Your task to perform on an android device: turn notification dots off Image 0: 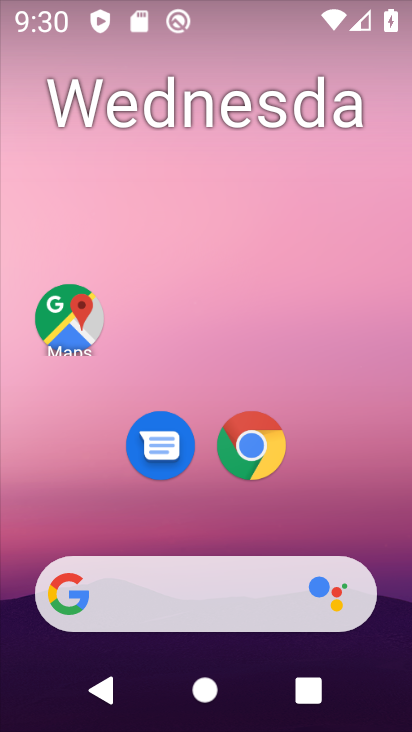
Step 0: drag from (148, 517) to (248, 50)
Your task to perform on an android device: turn notification dots off Image 1: 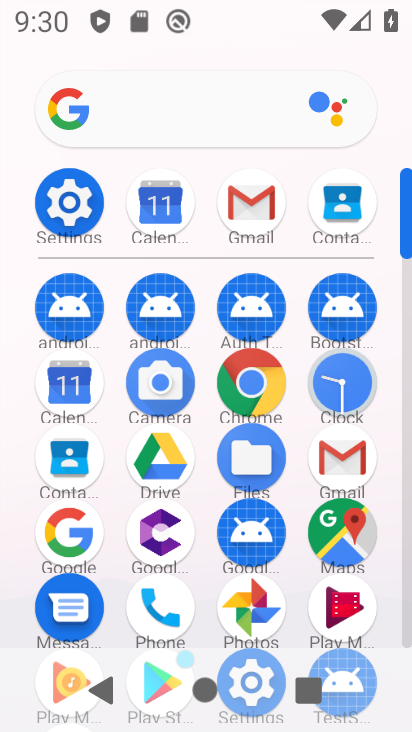
Step 1: click (68, 208)
Your task to perform on an android device: turn notification dots off Image 2: 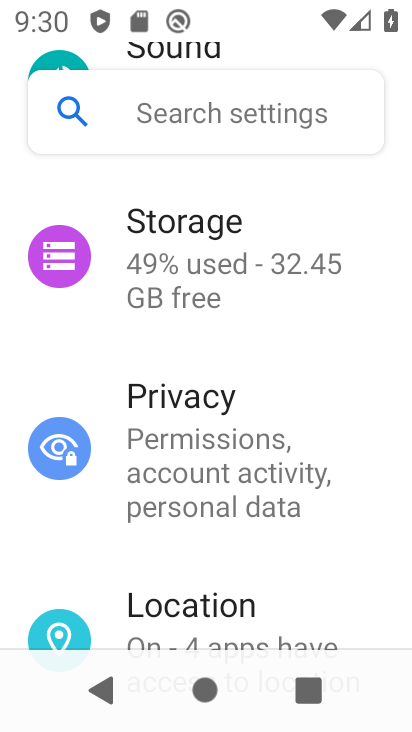
Step 2: drag from (232, 531) to (180, 677)
Your task to perform on an android device: turn notification dots off Image 3: 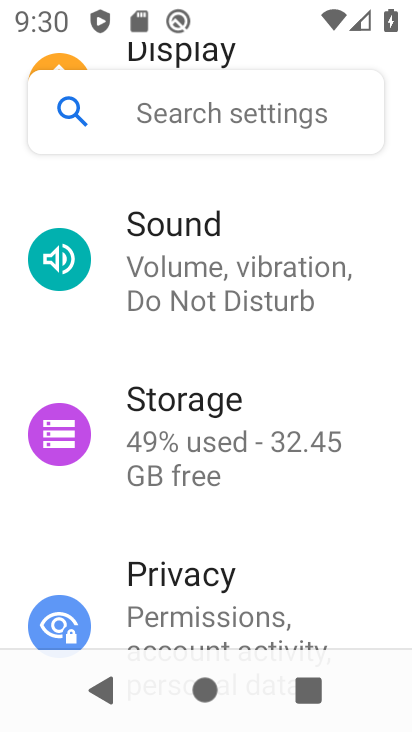
Step 3: drag from (219, 212) to (173, 649)
Your task to perform on an android device: turn notification dots off Image 4: 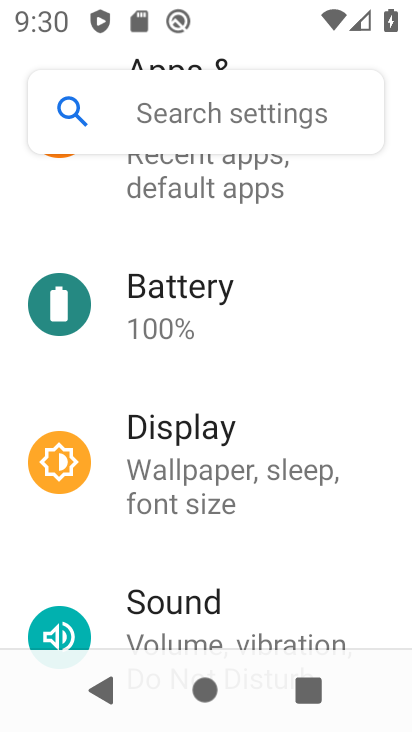
Step 4: drag from (263, 213) to (221, 727)
Your task to perform on an android device: turn notification dots off Image 5: 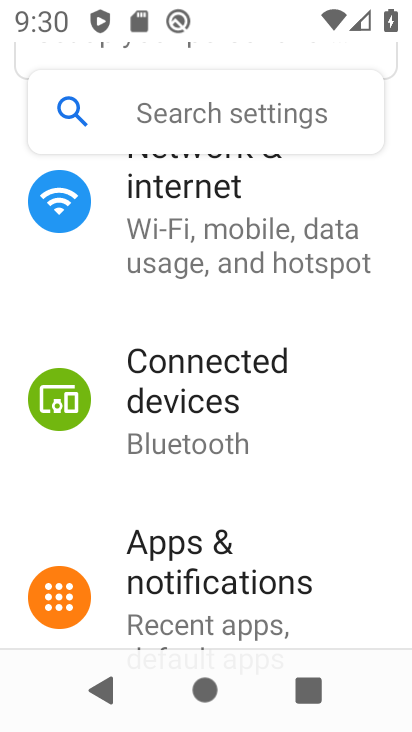
Step 5: click (217, 617)
Your task to perform on an android device: turn notification dots off Image 6: 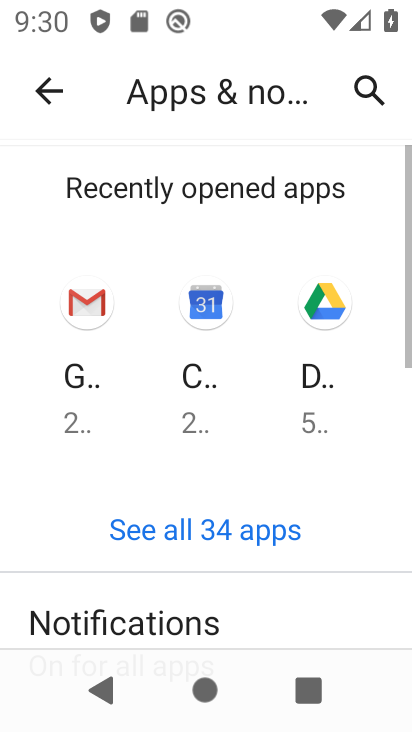
Step 6: drag from (188, 625) to (295, 125)
Your task to perform on an android device: turn notification dots off Image 7: 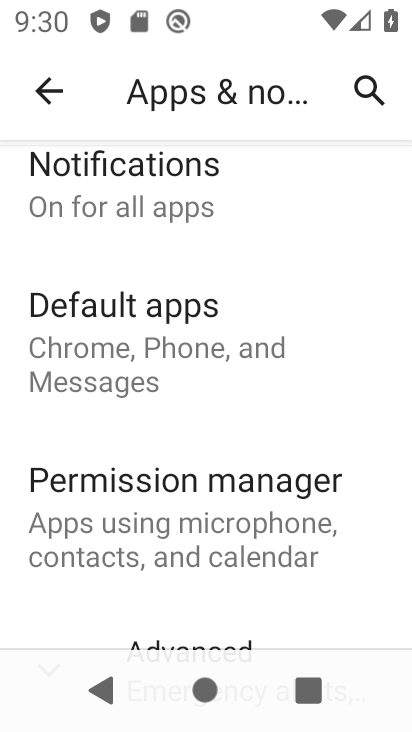
Step 7: click (164, 183)
Your task to perform on an android device: turn notification dots off Image 8: 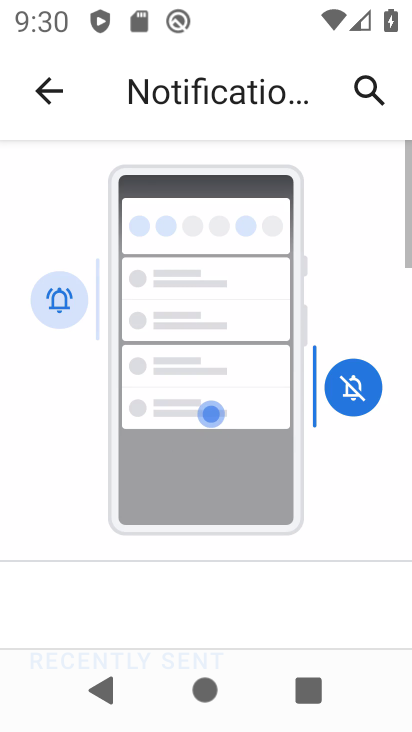
Step 8: drag from (168, 604) to (305, 45)
Your task to perform on an android device: turn notification dots off Image 9: 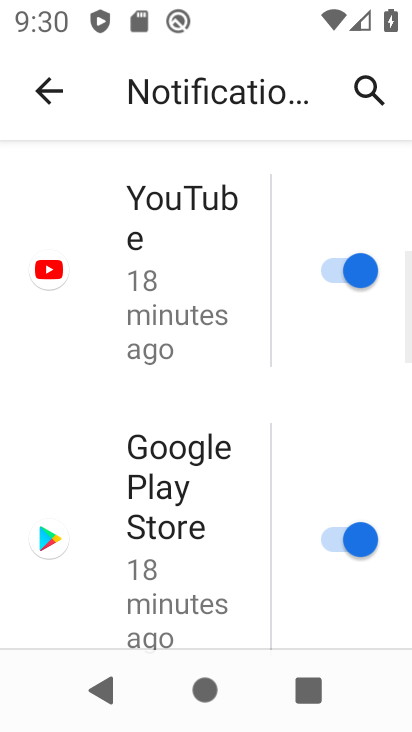
Step 9: drag from (187, 591) to (286, 77)
Your task to perform on an android device: turn notification dots off Image 10: 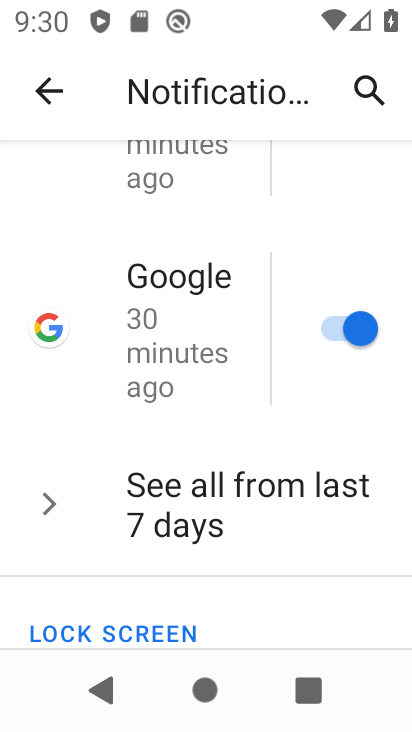
Step 10: drag from (212, 578) to (284, 90)
Your task to perform on an android device: turn notification dots off Image 11: 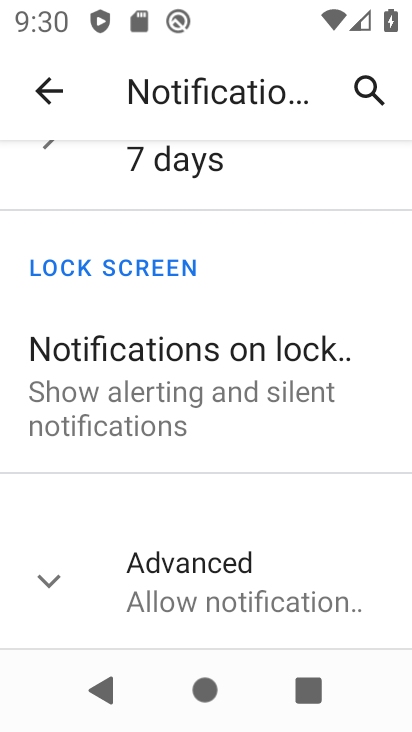
Step 11: click (196, 574)
Your task to perform on an android device: turn notification dots off Image 12: 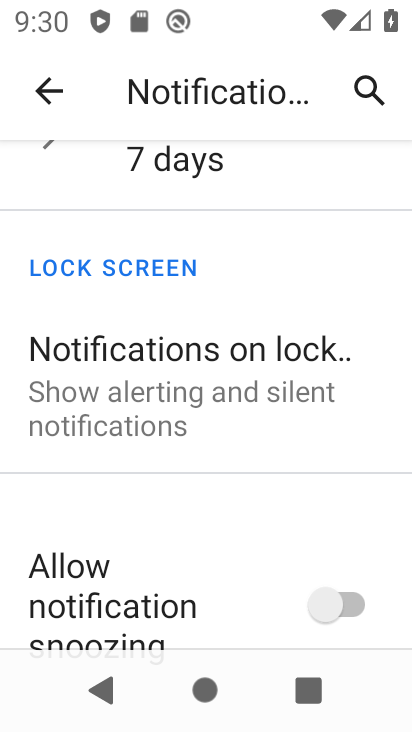
Step 12: drag from (187, 616) to (244, 215)
Your task to perform on an android device: turn notification dots off Image 13: 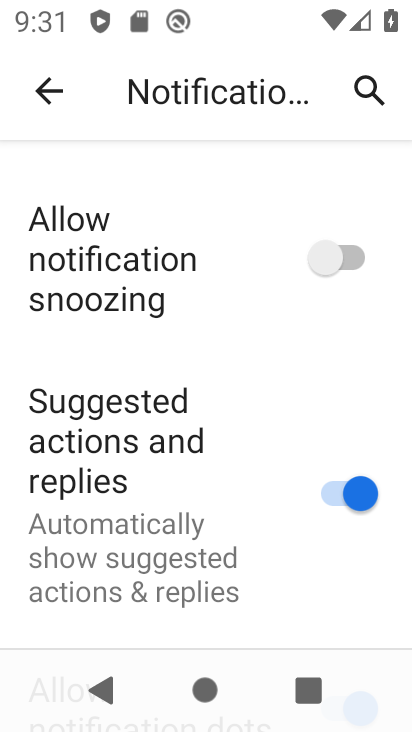
Step 13: drag from (214, 543) to (299, 68)
Your task to perform on an android device: turn notification dots off Image 14: 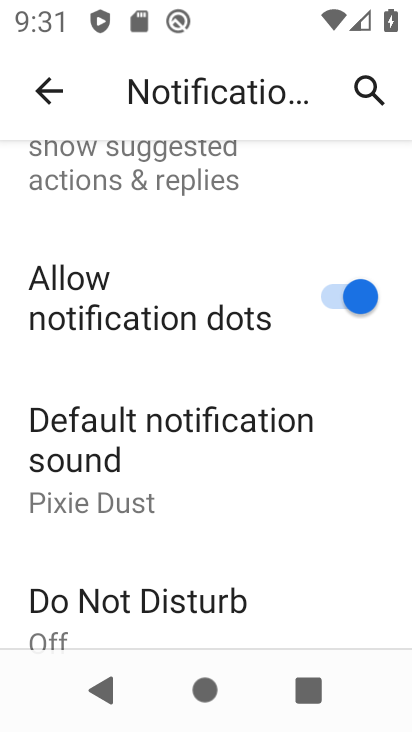
Step 14: click (339, 292)
Your task to perform on an android device: turn notification dots off Image 15: 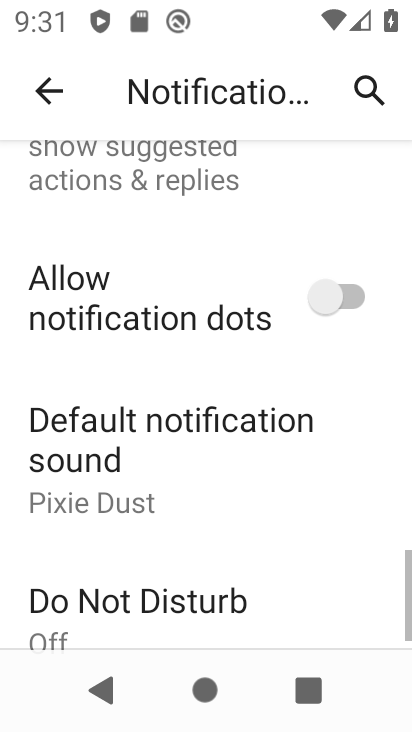
Step 15: task complete